Your task to perform on an android device: check battery use Image 0: 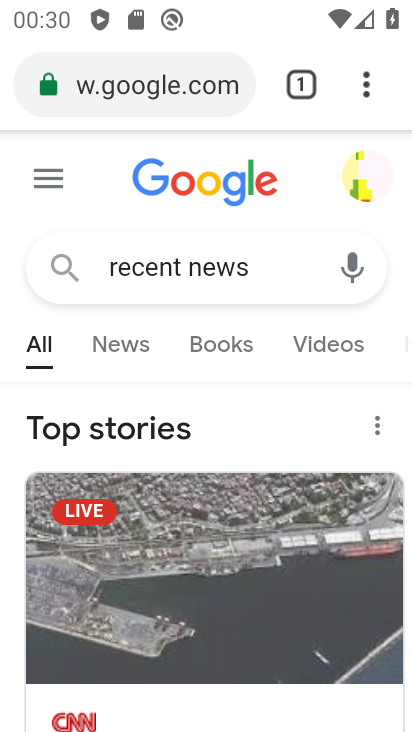
Step 0: press home button
Your task to perform on an android device: check battery use Image 1: 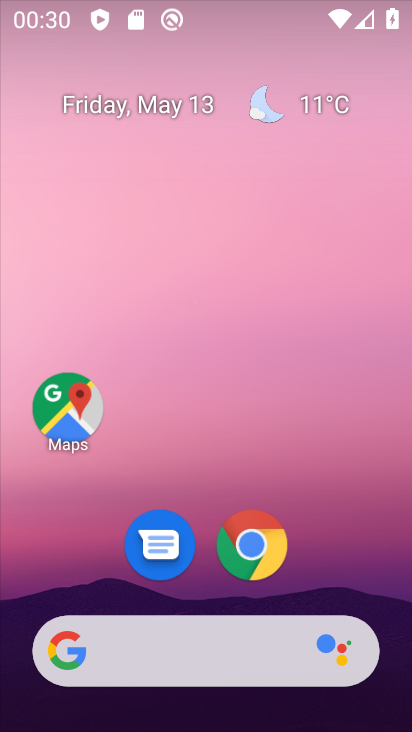
Step 1: drag from (376, 575) to (369, 222)
Your task to perform on an android device: check battery use Image 2: 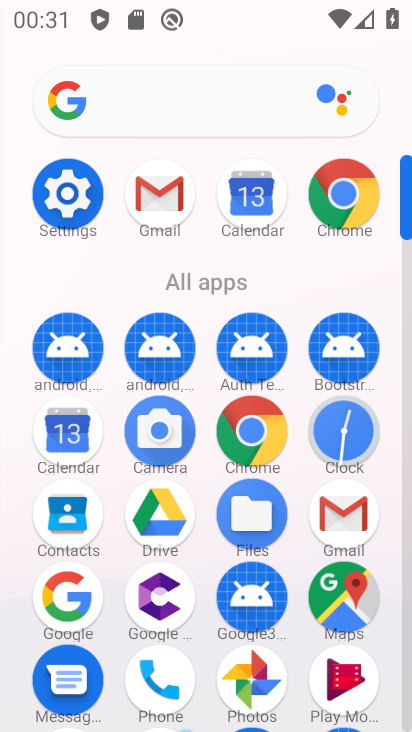
Step 2: click (93, 204)
Your task to perform on an android device: check battery use Image 3: 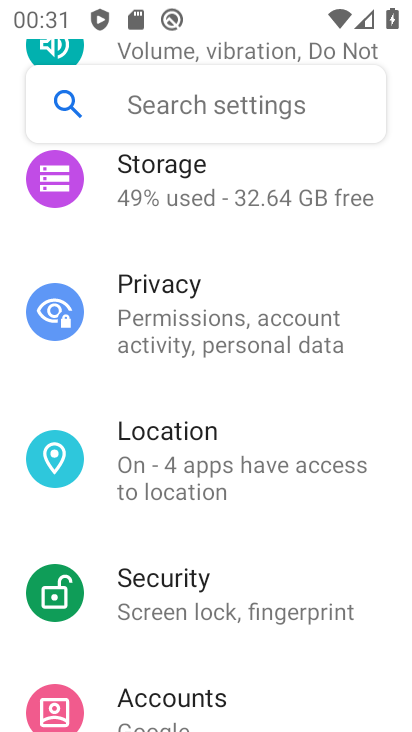
Step 3: drag from (238, 200) to (242, 659)
Your task to perform on an android device: check battery use Image 4: 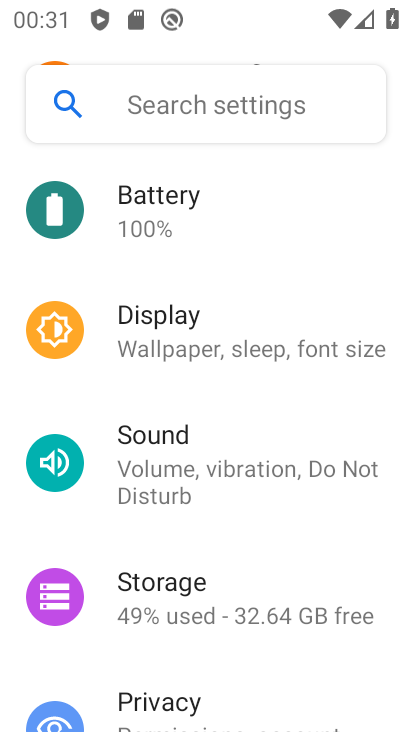
Step 4: click (210, 222)
Your task to perform on an android device: check battery use Image 5: 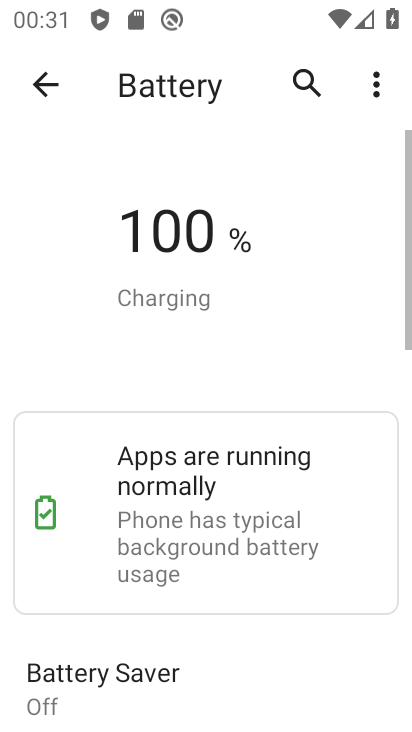
Step 5: task complete